Your task to perform on an android device: Is it going to rain tomorrow? Image 0: 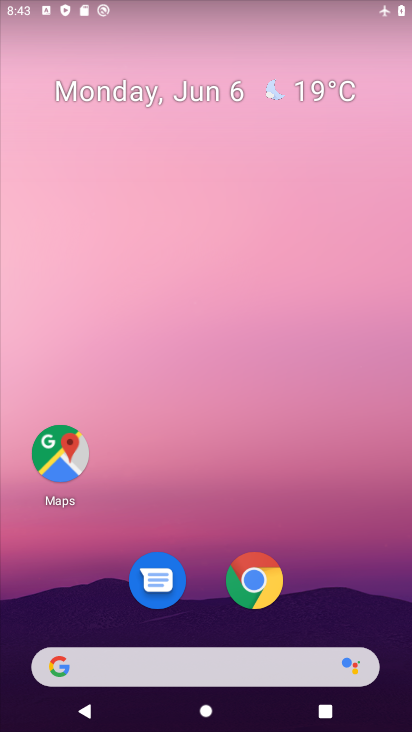
Step 0: drag from (16, 264) to (320, 281)
Your task to perform on an android device: Is it going to rain tomorrow? Image 1: 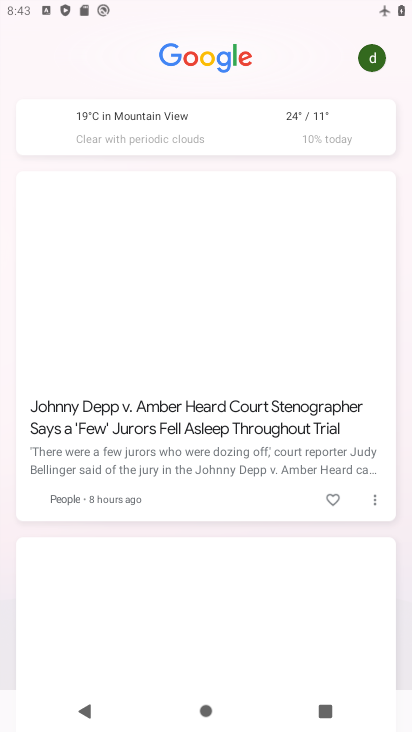
Step 1: click (156, 115)
Your task to perform on an android device: Is it going to rain tomorrow? Image 2: 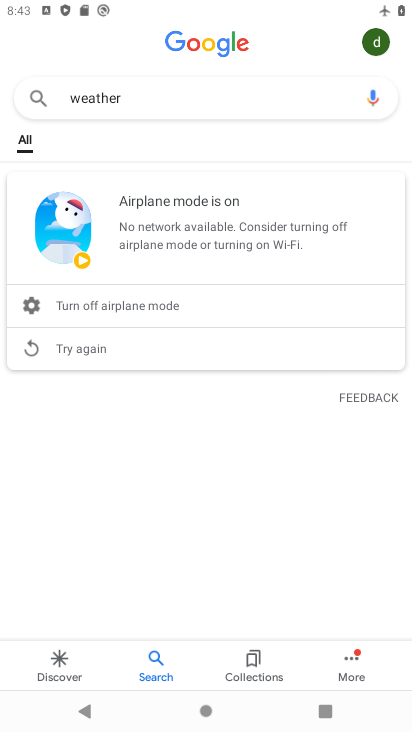
Step 2: task complete